Your task to perform on an android device: create a new album in the google photos Image 0: 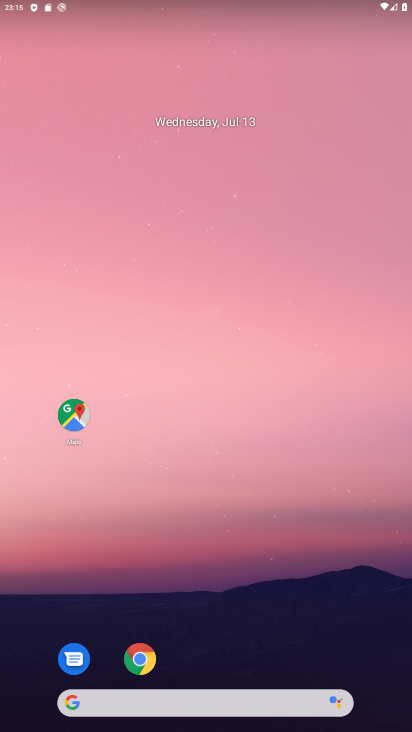
Step 0: drag from (372, 665) to (342, 151)
Your task to perform on an android device: create a new album in the google photos Image 1: 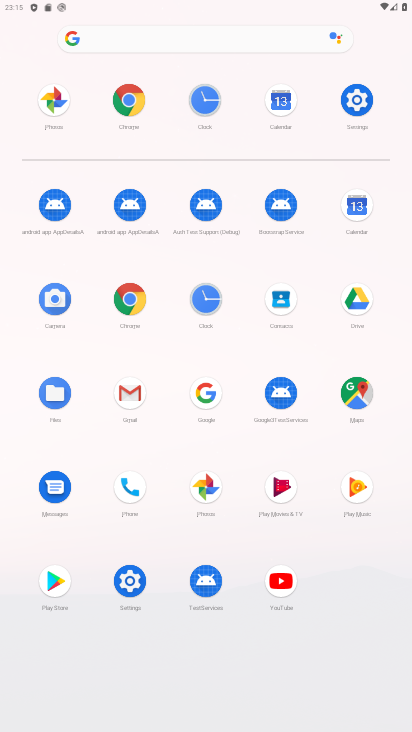
Step 1: click (205, 487)
Your task to perform on an android device: create a new album in the google photos Image 2: 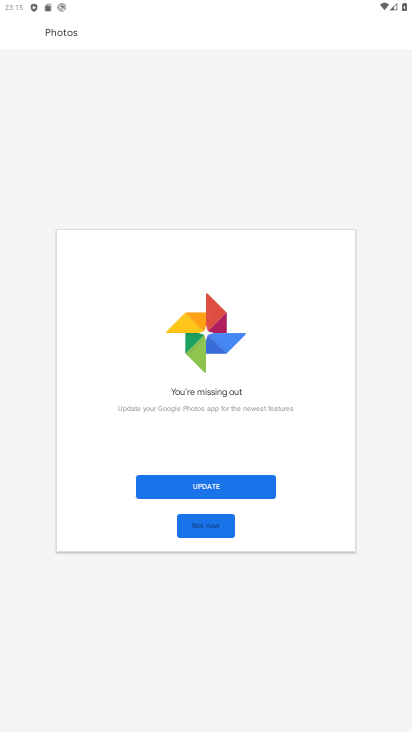
Step 2: click (210, 488)
Your task to perform on an android device: create a new album in the google photos Image 3: 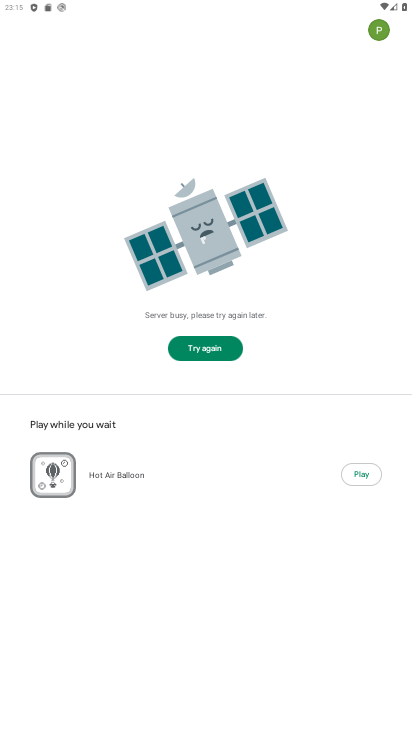
Step 3: click (203, 348)
Your task to perform on an android device: create a new album in the google photos Image 4: 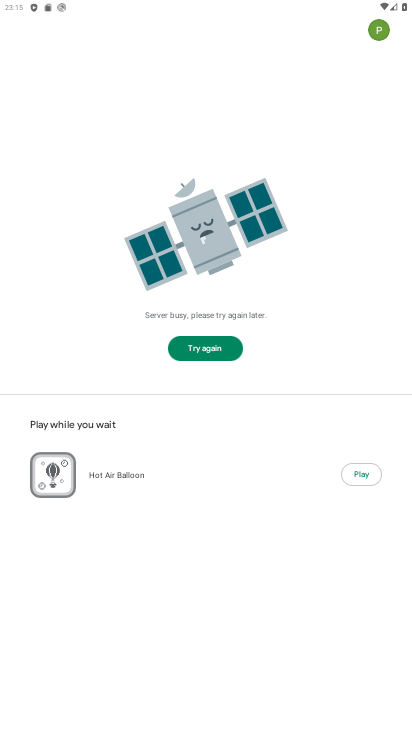
Step 4: click (202, 351)
Your task to perform on an android device: create a new album in the google photos Image 5: 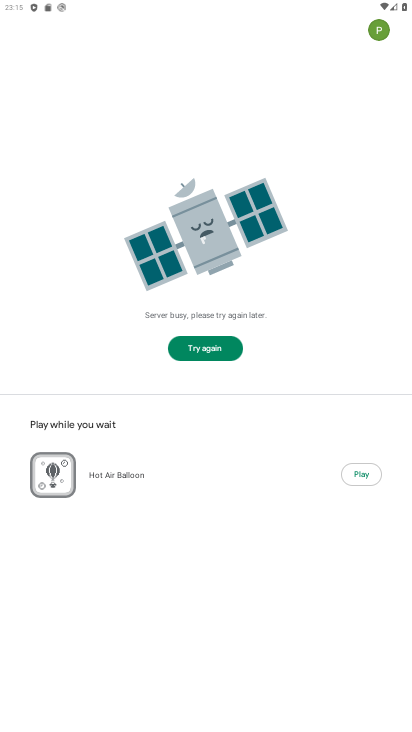
Step 5: click (202, 351)
Your task to perform on an android device: create a new album in the google photos Image 6: 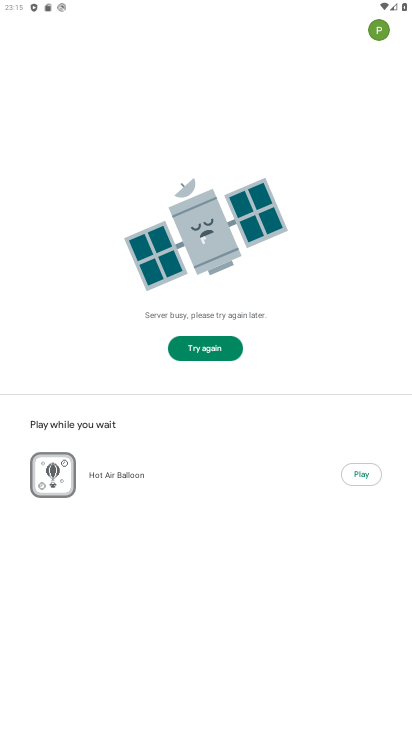
Step 6: click (202, 351)
Your task to perform on an android device: create a new album in the google photos Image 7: 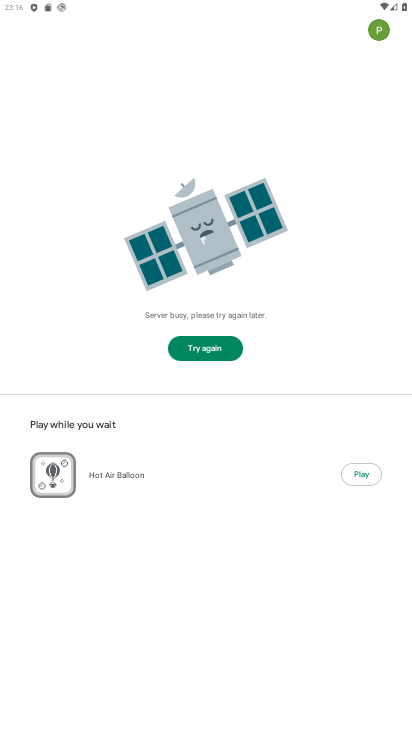
Step 7: task complete